Your task to perform on an android device: Open display settings Image 0: 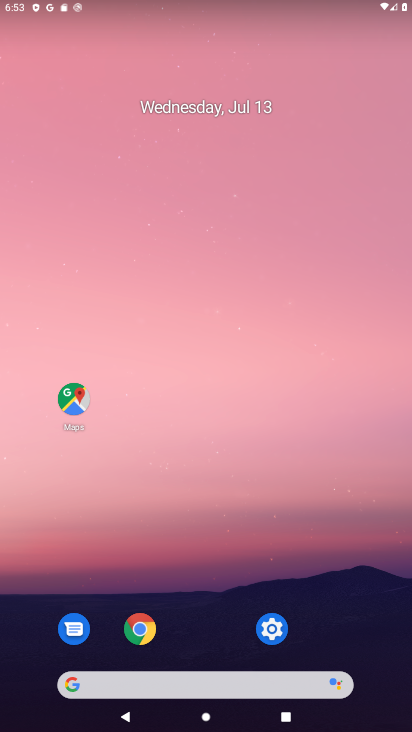
Step 0: click (275, 625)
Your task to perform on an android device: Open display settings Image 1: 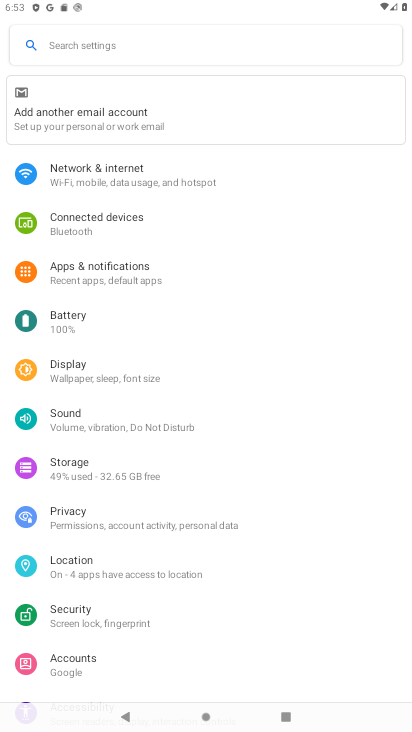
Step 1: click (84, 378)
Your task to perform on an android device: Open display settings Image 2: 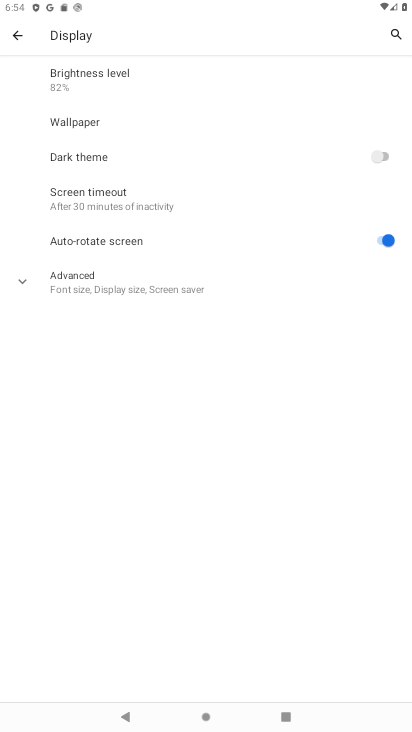
Step 2: task complete